Your task to perform on an android device: turn off notifications settings in the gmail app Image 0: 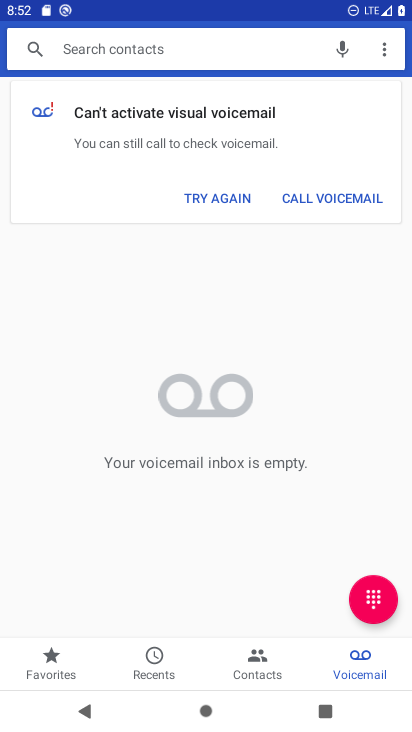
Step 0: press home button
Your task to perform on an android device: turn off notifications settings in the gmail app Image 1: 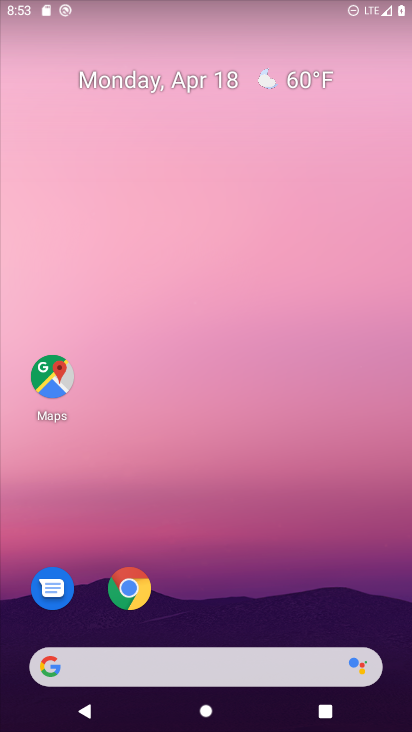
Step 1: drag from (387, 619) to (351, 185)
Your task to perform on an android device: turn off notifications settings in the gmail app Image 2: 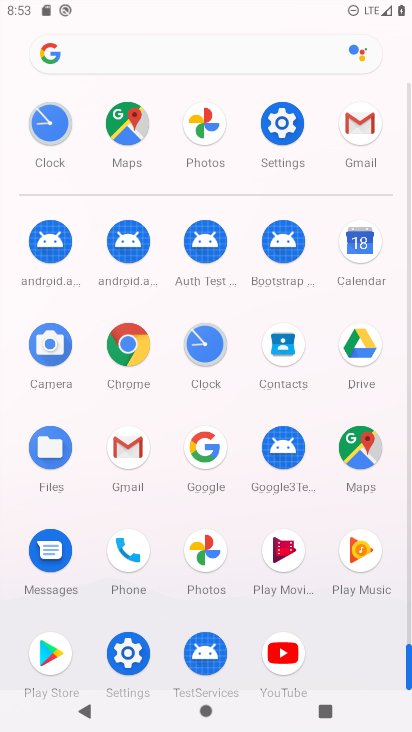
Step 2: click (124, 439)
Your task to perform on an android device: turn off notifications settings in the gmail app Image 3: 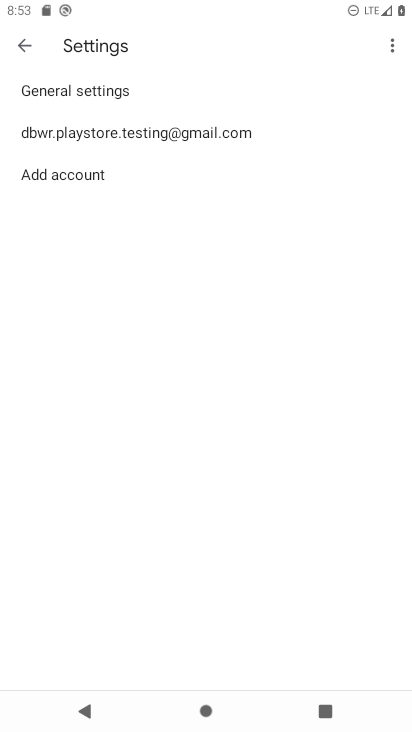
Step 3: click (75, 126)
Your task to perform on an android device: turn off notifications settings in the gmail app Image 4: 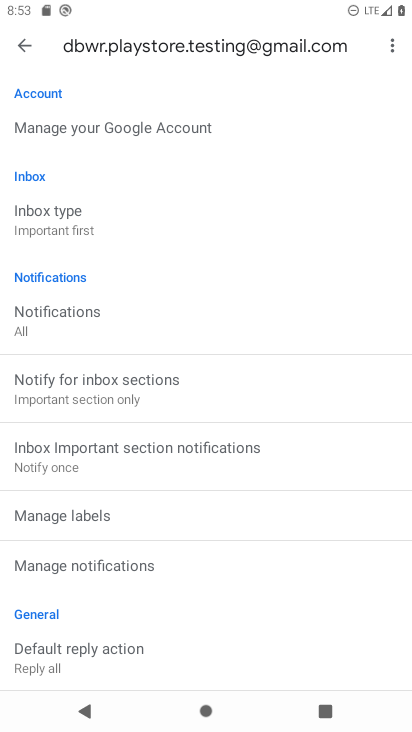
Step 4: click (81, 564)
Your task to perform on an android device: turn off notifications settings in the gmail app Image 5: 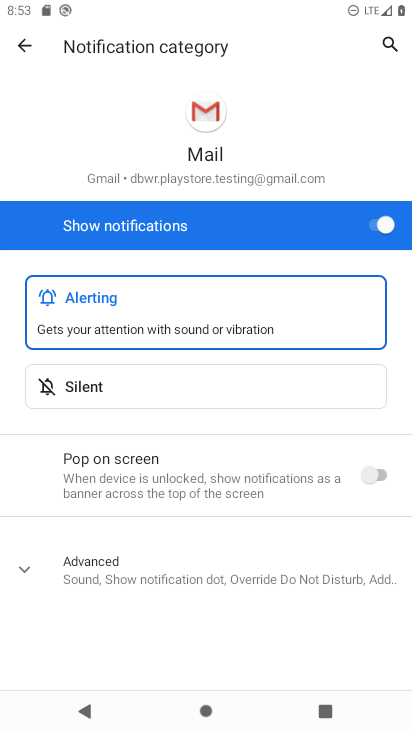
Step 5: click (368, 223)
Your task to perform on an android device: turn off notifications settings in the gmail app Image 6: 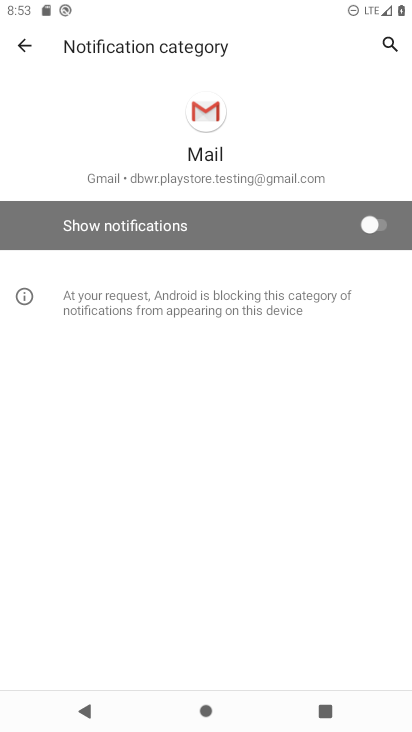
Step 6: task complete